Your task to perform on an android device: turn on the 24-hour format for clock Image 0: 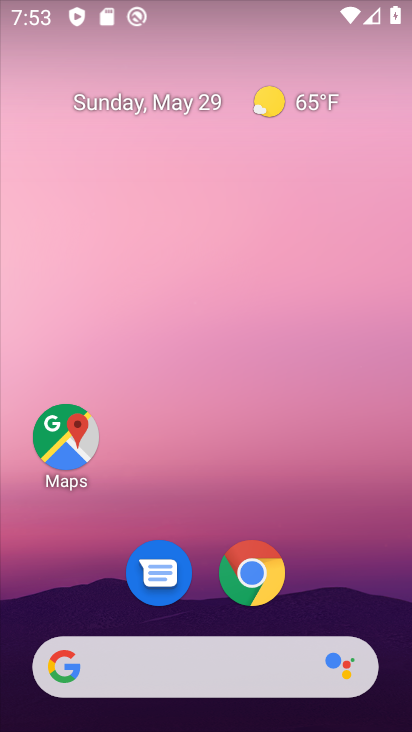
Step 0: drag from (202, 604) to (204, 239)
Your task to perform on an android device: turn on the 24-hour format for clock Image 1: 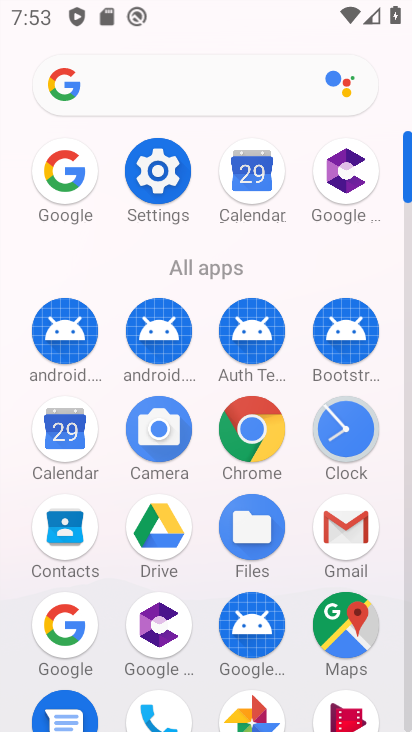
Step 1: click (322, 421)
Your task to perform on an android device: turn on the 24-hour format for clock Image 2: 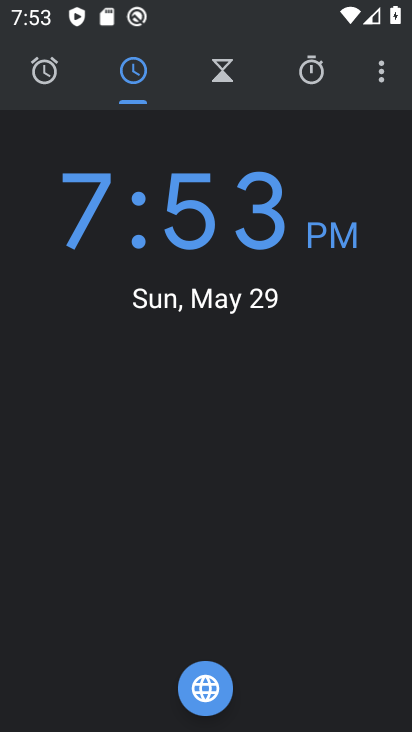
Step 2: click (372, 79)
Your task to perform on an android device: turn on the 24-hour format for clock Image 3: 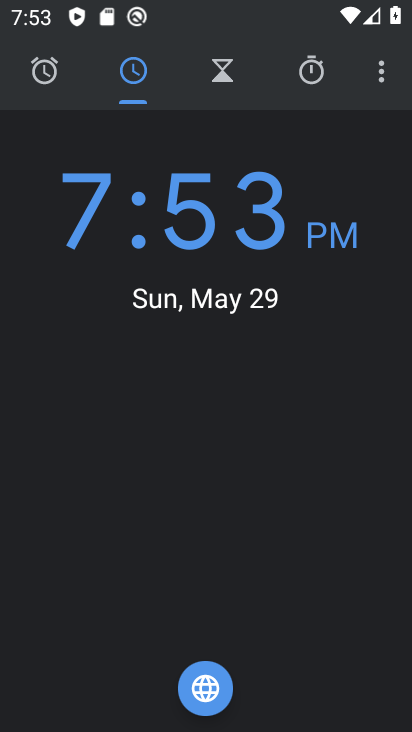
Step 3: click (378, 74)
Your task to perform on an android device: turn on the 24-hour format for clock Image 4: 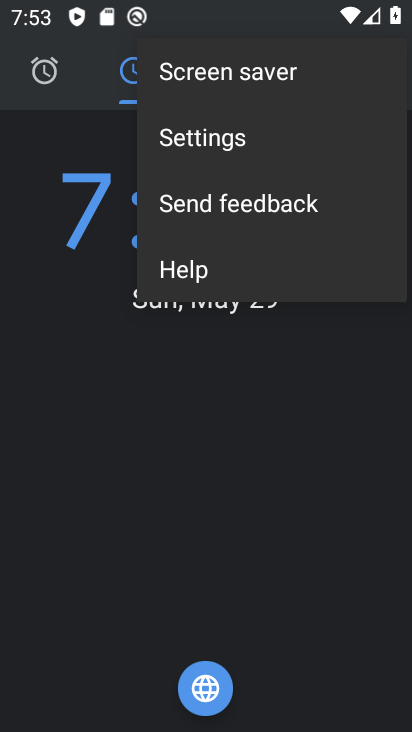
Step 4: click (281, 137)
Your task to perform on an android device: turn on the 24-hour format for clock Image 5: 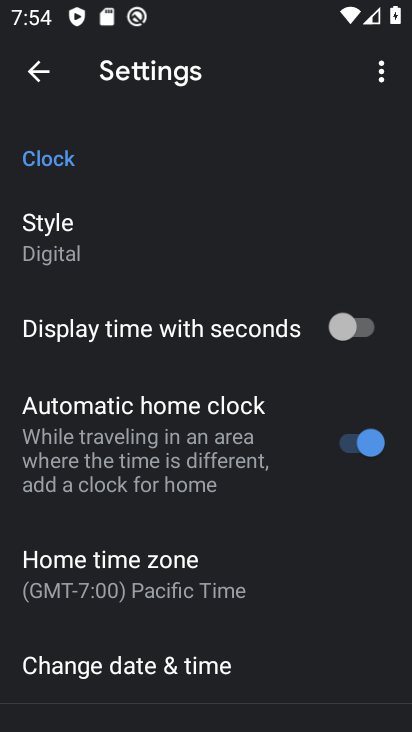
Step 5: drag from (152, 217) to (187, 429)
Your task to perform on an android device: turn on the 24-hour format for clock Image 6: 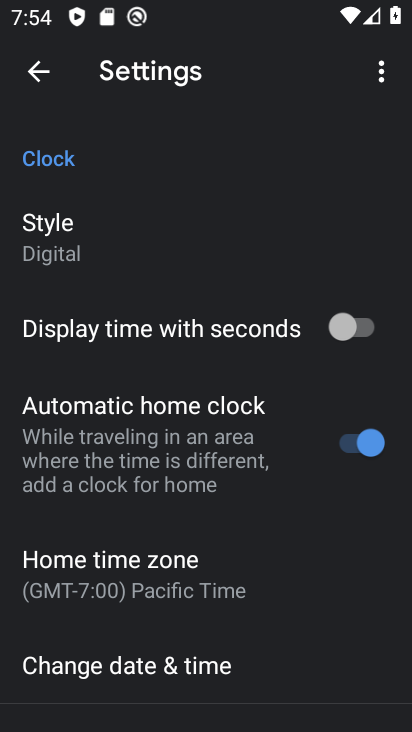
Step 6: click (189, 662)
Your task to perform on an android device: turn on the 24-hour format for clock Image 7: 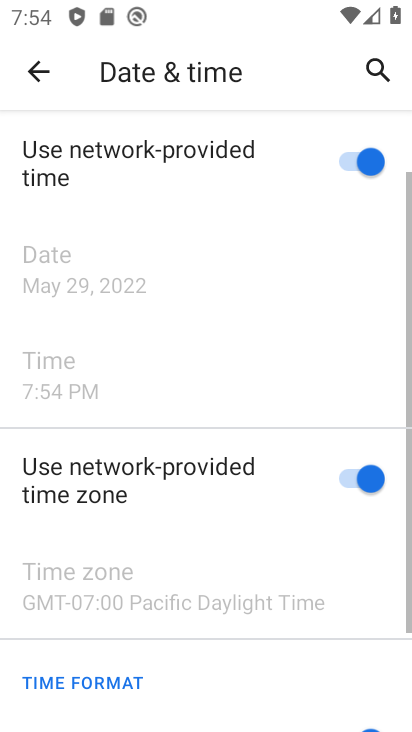
Step 7: drag from (183, 668) to (181, 315)
Your task to perform on an android device: turn on the 24-hour format for clock Image 8: 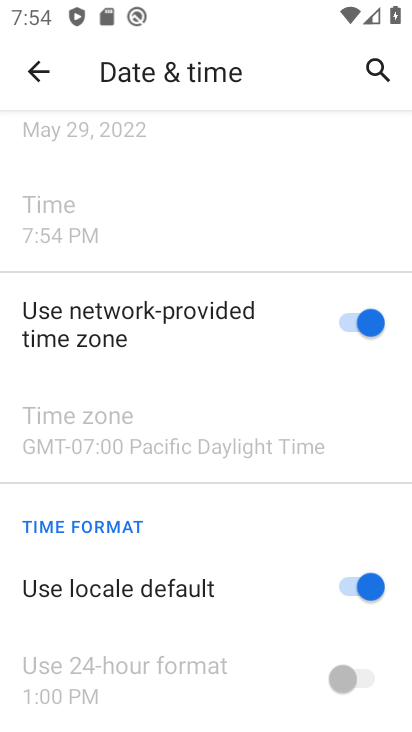
Step 8: click (346, 594)
Your task to perform on an android device: turn on the 24-hour format for clock Image 9: 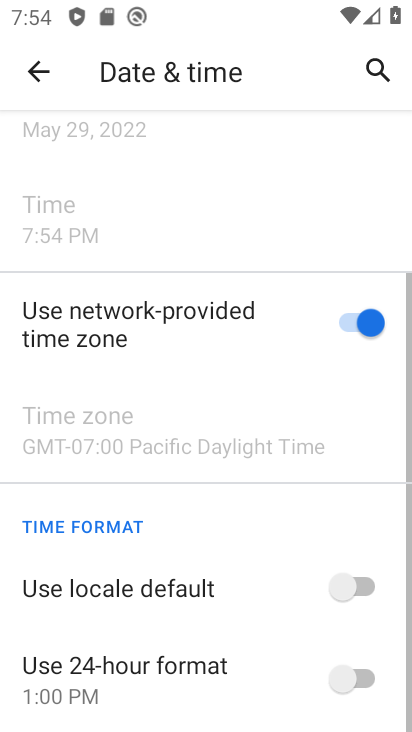
Step 9: click (366, 681)
Your task to perform on an android device: turn on the 24-hour format for clock Image 10: 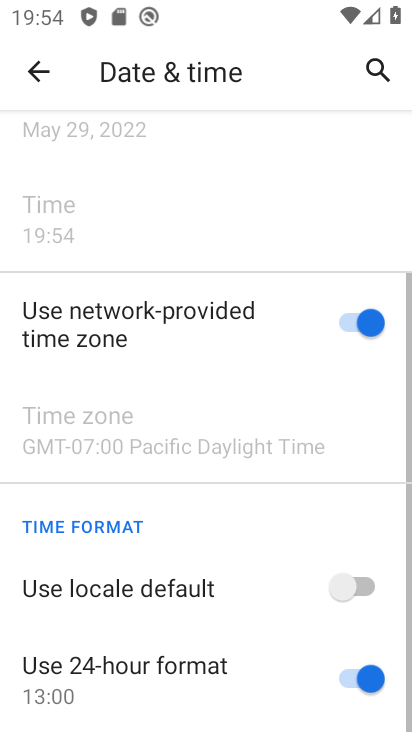
Step 10: task complete